Your task to perform on an android device: turn off wifi Image 0: 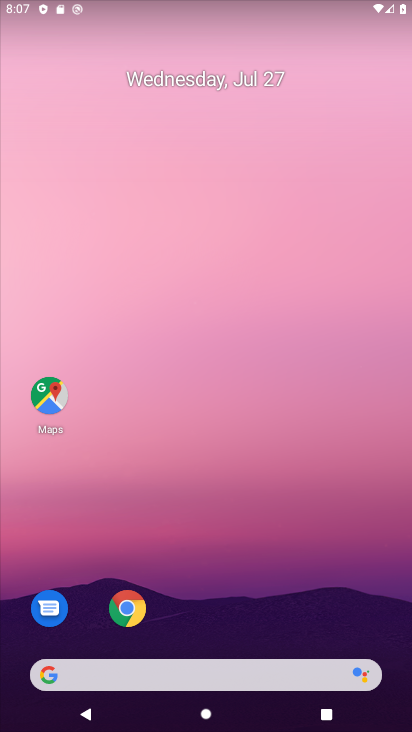
Step 0: drag from (233, 468) to (261, 182)
Your task to perform on an android device: turn off wifi Image 1: 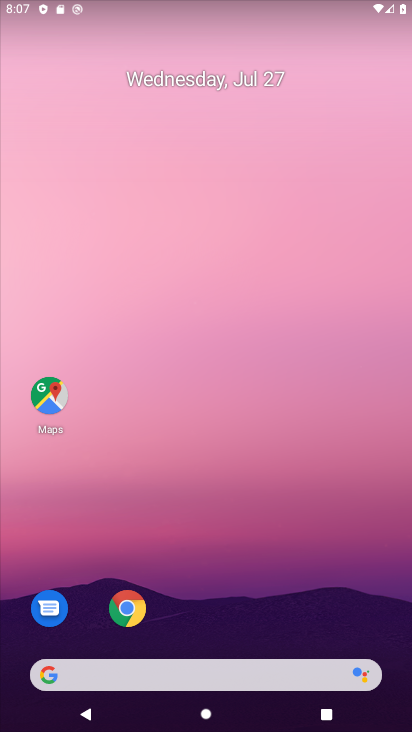
Step 1: drag from (269, 457) to (286, 266)
Your task to perform on an android device: turn off wifi Image 2: 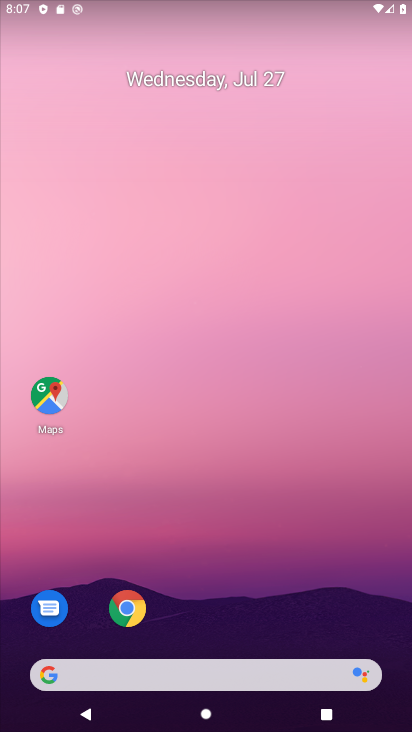
Step 2: drag from (265, 653) to (262, 309)
Your task to perform on an android device: turn off wifi Image 3: 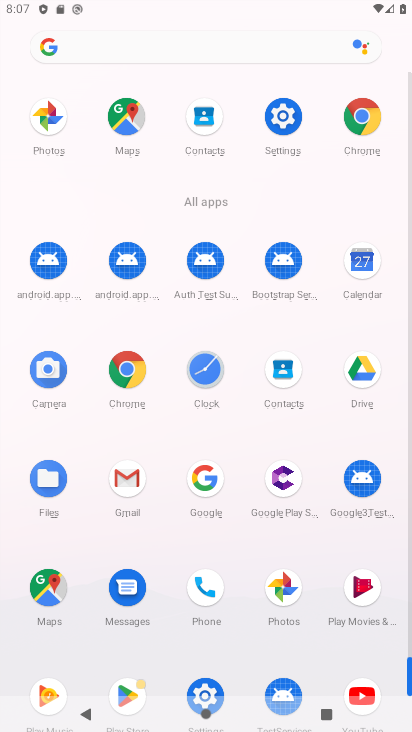
Step 3: click (286, 115)
Your task to perform on an android device: turn off wifi Image 4: 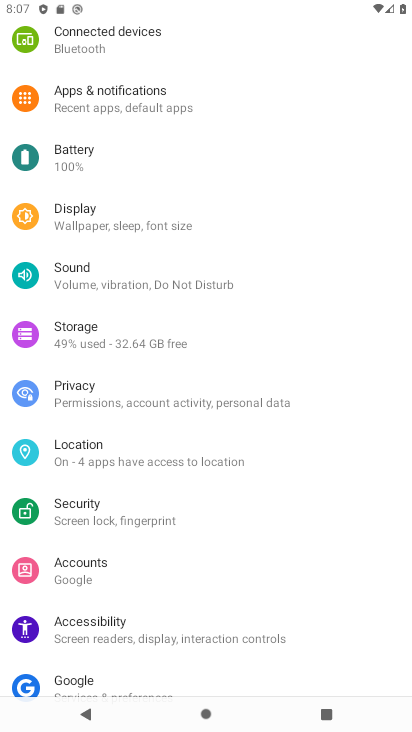
Step 4: click (119, 41)
Your task to perform on an android device: turn off wifi Image 5: 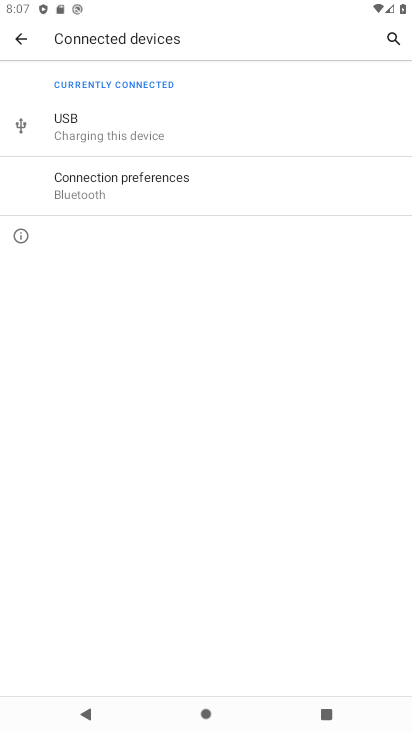
Step 5: task complete